Your task to perform on an android device: turn off picture-in-picture Image 0: 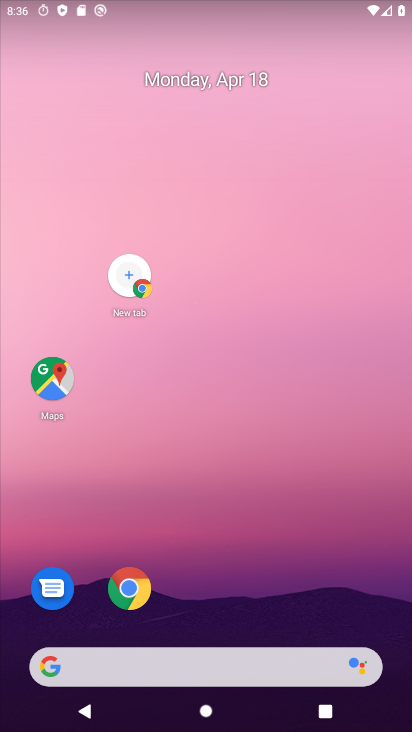
Step 0: drag from (334, 428) to (366, 112)
Your task to perform on an android device: turn off picture-in-picture Image 1: 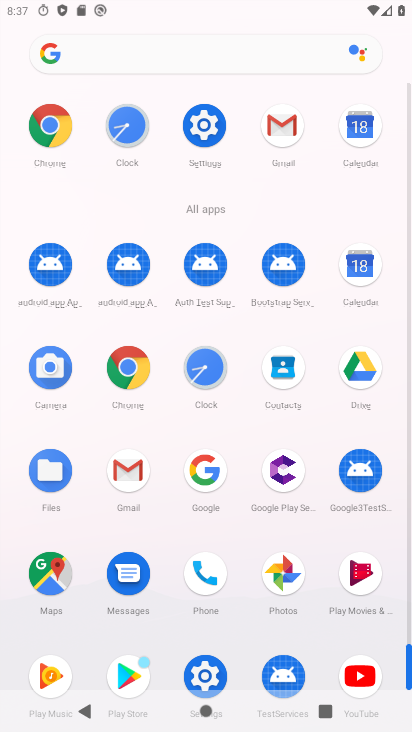
Step 1: click (49, 122)
Your task to perform on an android device: turn off picture-in-picture Image 2: 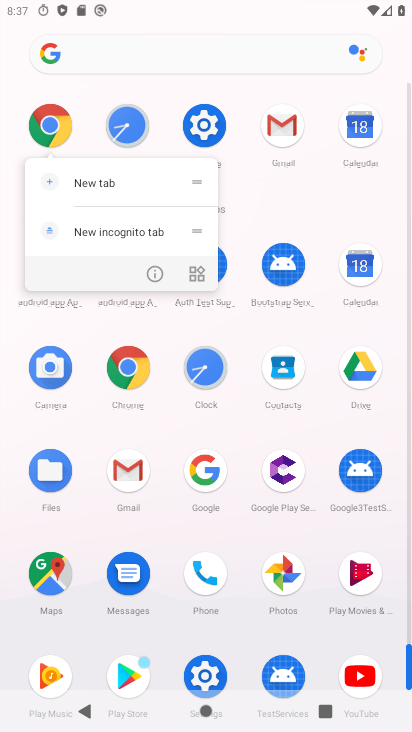
Step 2: click (152, 273)
Your task to perform on an android device: turn off picture-in-picture Image 3: 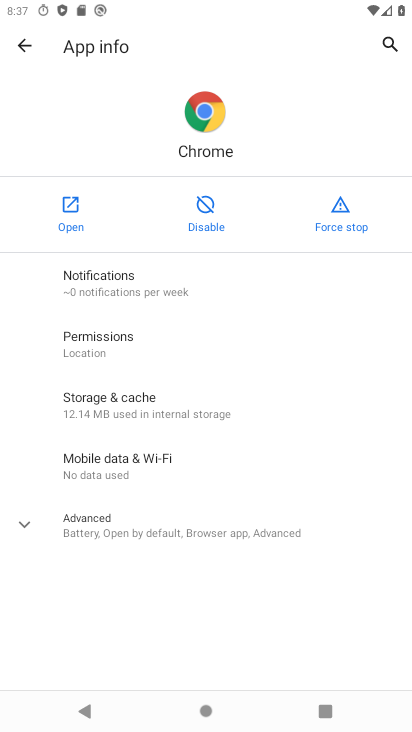
Step 3: click (86, 529)
Your task to perform on an android device: turn off picture-in-picture Image 4: 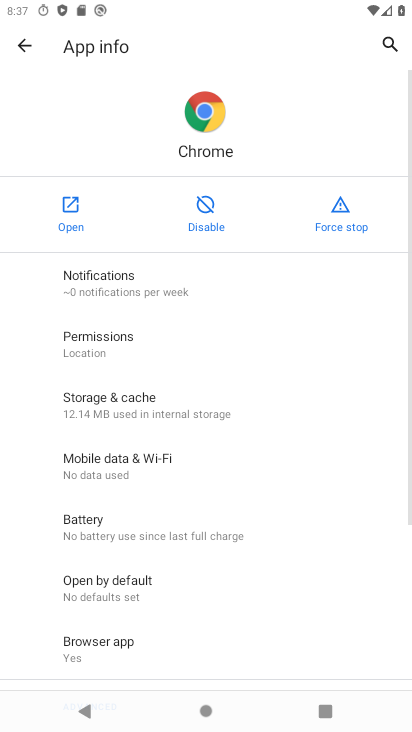
Step 4: drag from (227, 629) to (245, 226)
Your task to perform on an android device: turn off picture-in-picture Image 5: 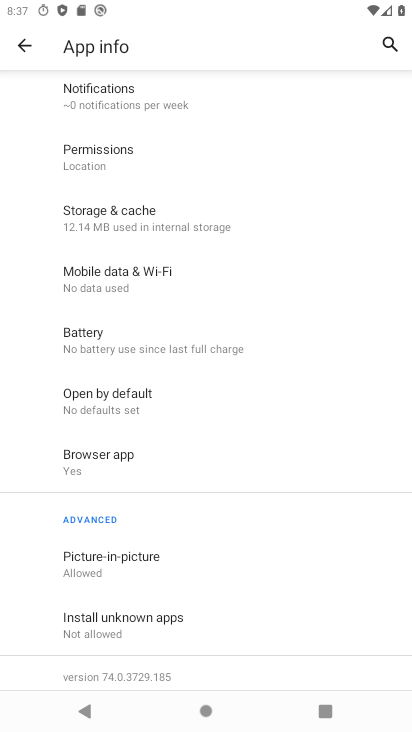
Step 5: drag from (176, 503) to (228, 281)
Your task to perform on an android device: turn off picture-in-picture Image 6: 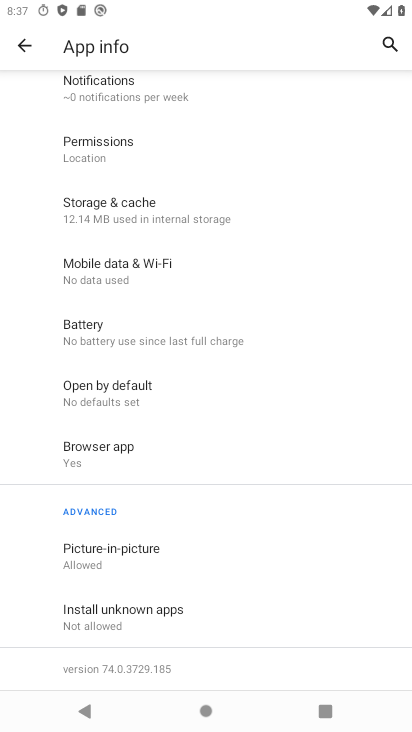
Step 6: click (109, 546)
Your task to perform on an android device: turn off picture-in-picture Image 7: 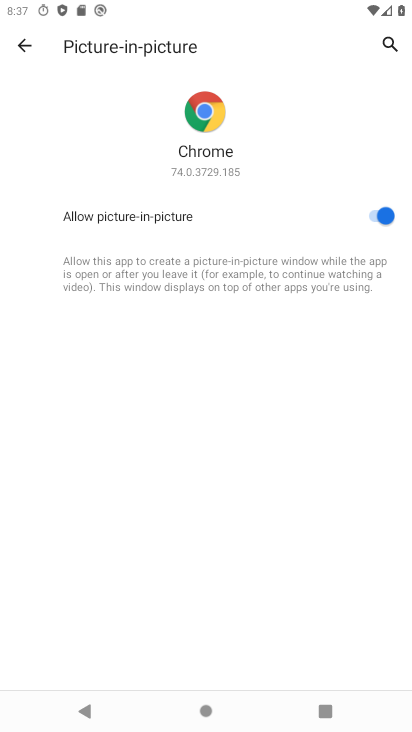
Step 7: click (370, 218)
Your task to perform on an android device: turn off picture-in-picture Image 8: 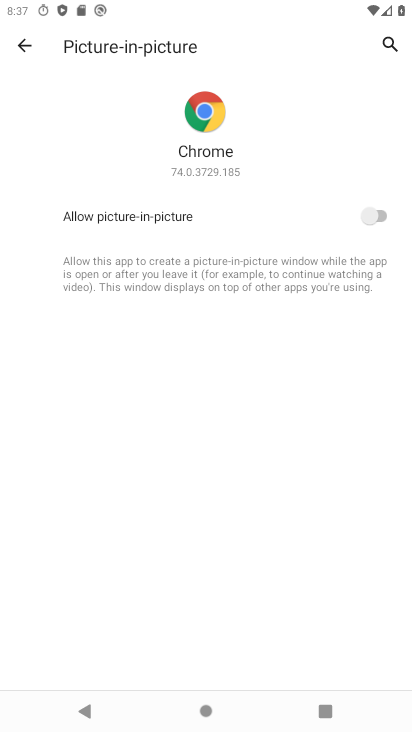
Step 8: task complete